Your task to perform on an android device: change timer sound Image 0: 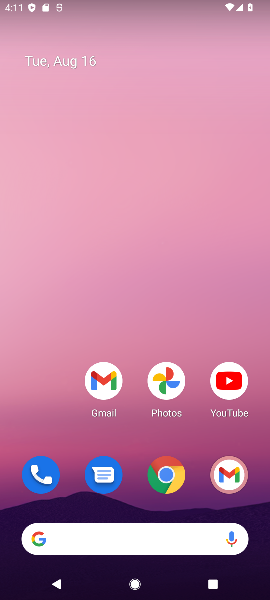
Step 0: drag from (195, 455) to (161, 24)
Your task to perform on an android device: change timer sound Image 1: 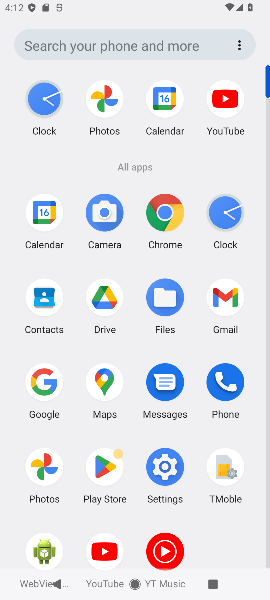
Step 1: click (225, 214)
Your task to perform on an android device: change timer sound Image 2: 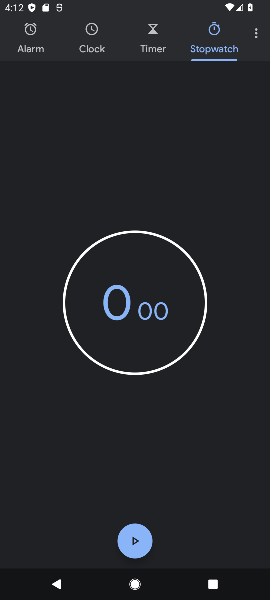
Step 2: click (253, 42)
Your task to perform on an android device: change timer sound Image 3: 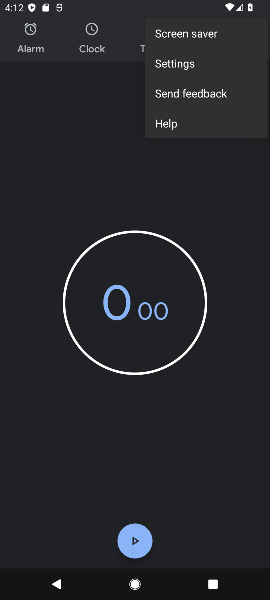
Step 3: click (195, 73)
Your task to perform on an android device: change timer sound Image 4: 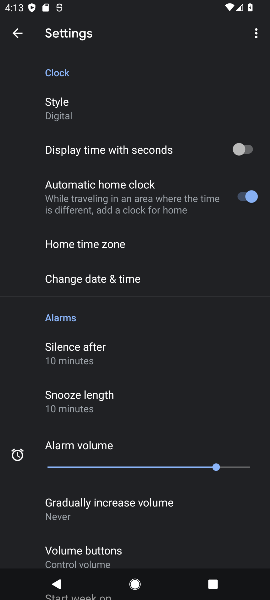
Step 4: drag from (97, 512) to (141, 64)
Your task to perform on an android device: change timer sound Image 5: 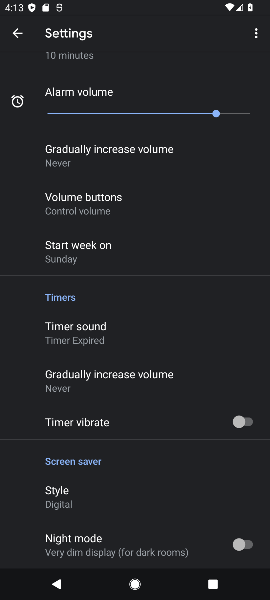
Step 5: click (113, 332)
Your task to perform on an android device: change timer sound Image 6: 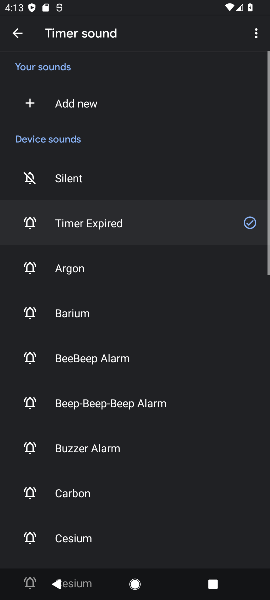
Step 6: click (75, 320)
Your task to perform on an android device: change timer sound Image 7: 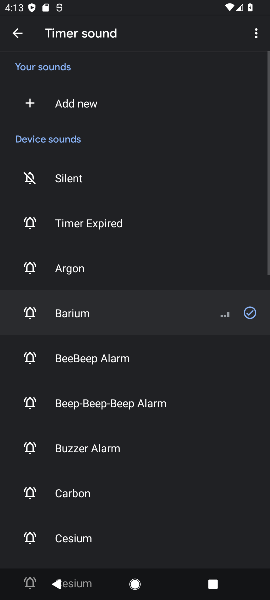
Step 7: task complete